Your task to perform on an android device: Open Wikipedia Image 0: 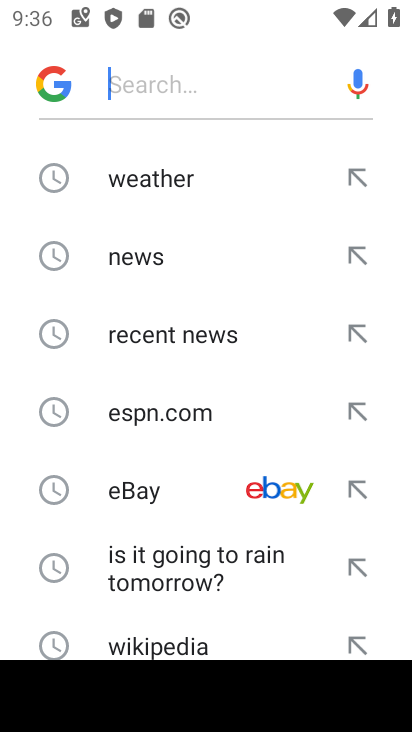
Step 0: click (190, 649)
Your task to perform on an android device: Open Wikipedia Image 1: 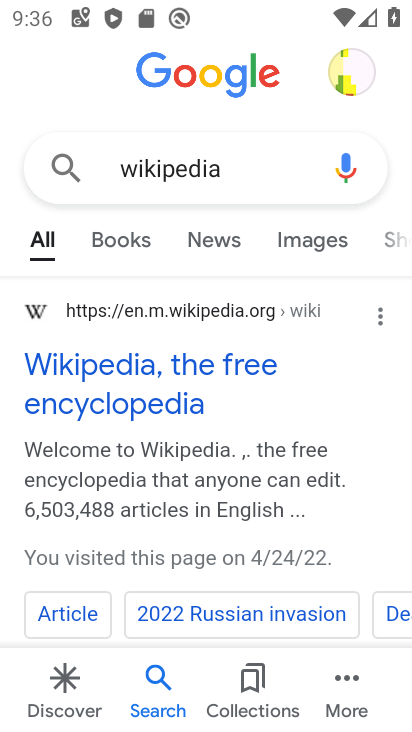
Step 1: click (160, 402)
Your task to perform on an android device: Open Wikipedia Image 2: 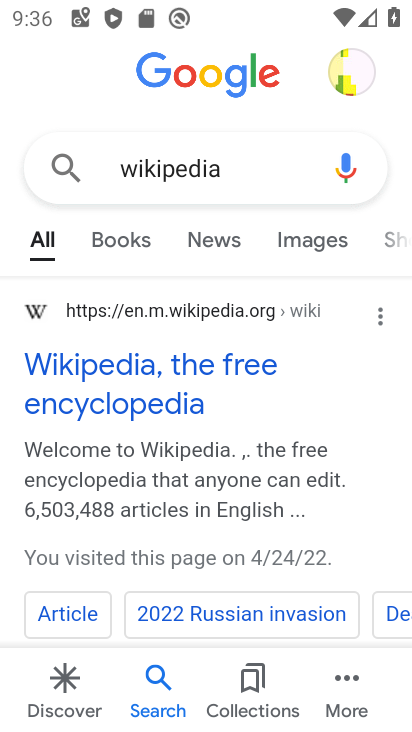
Step 2: task complete